Your task to perform on an android device: Open Android settings Image 0: 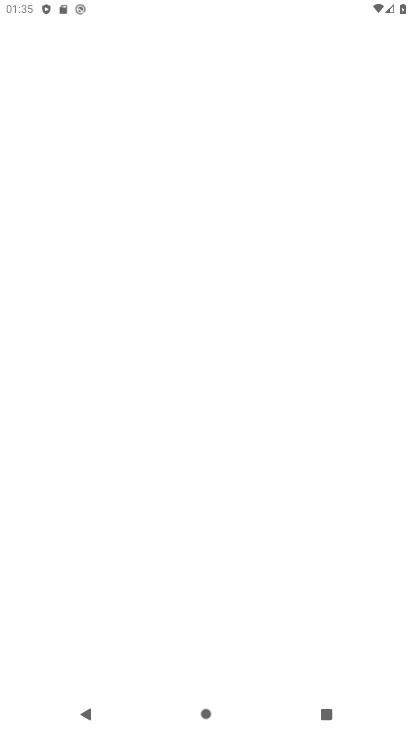
Step 0: drag from (204, 592) to (252, 327)
Your task to perform on an android device: Open Android settings Image 1: 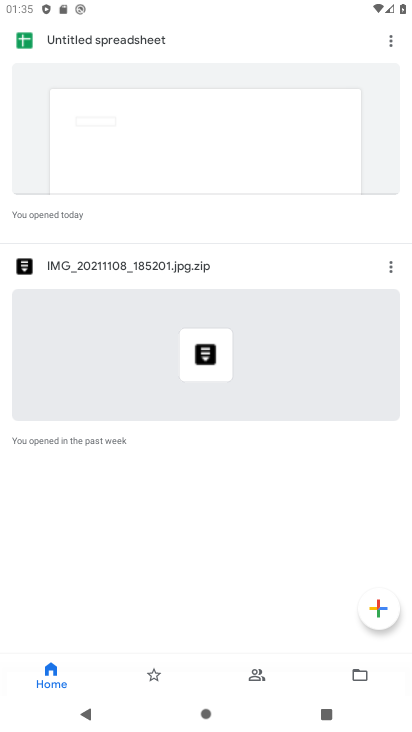
Step 1: press home button
Your task to perform on an android device: Open Android settings Image 2: 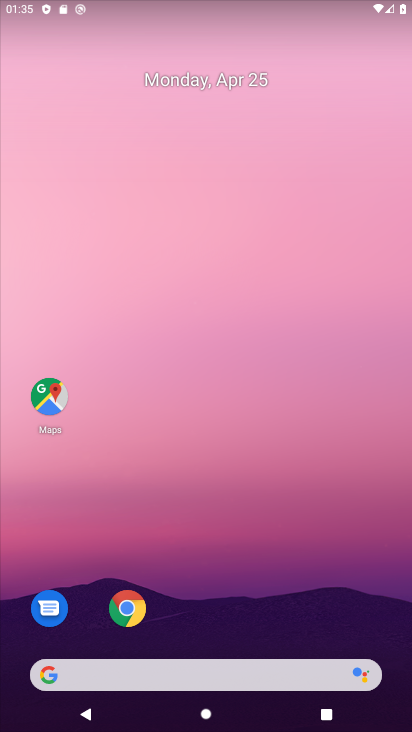
Step 2: drag from (194, 588) to (225, 319)
Your task to perform on an android device: Open Android settings Image 3: 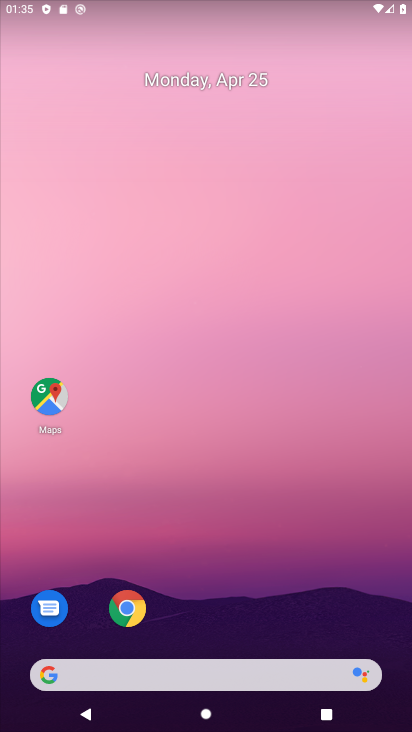
Step 3: drag from (228, 472) to (266, 203)
Your task to perform on an android device: Open Android settings Image 4: 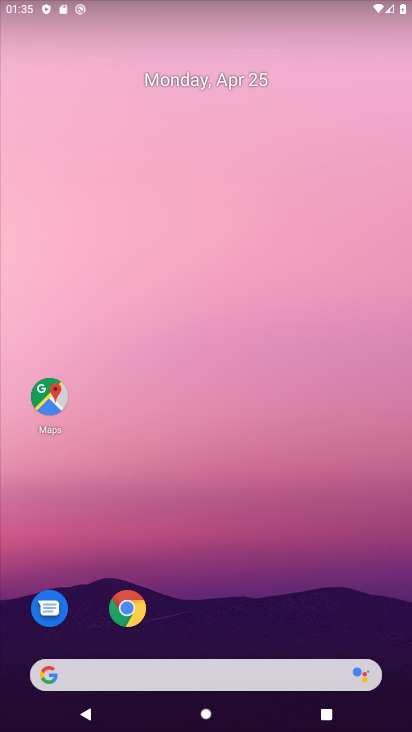
Step 4: drag from (193, 659) to (237, 61)
Your task to perform on an android device: Open Android settings Image 5: 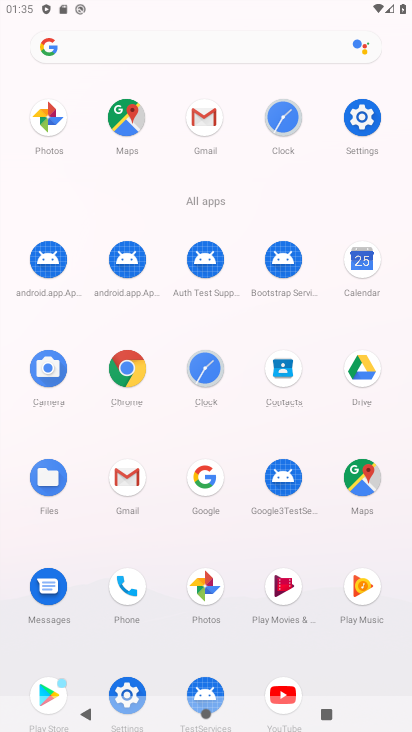
Step 5: click (359, 116)
Your task to perform on an android device: Open Android settings Image 6: 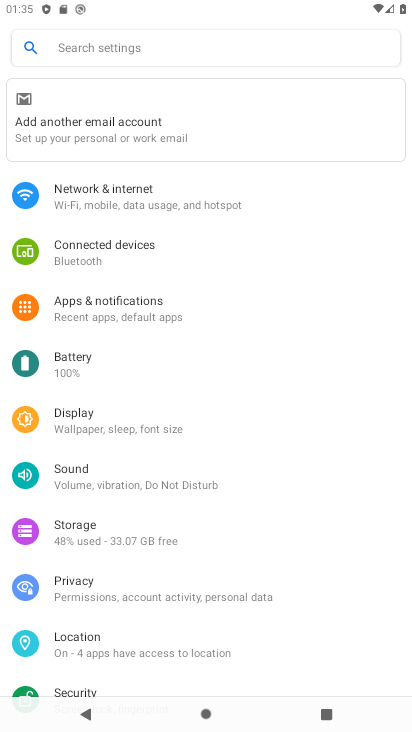
Step 6: drag from (151, 669) to (280, 35)
Your task to perform on an android device: Open Android settings Image 7: 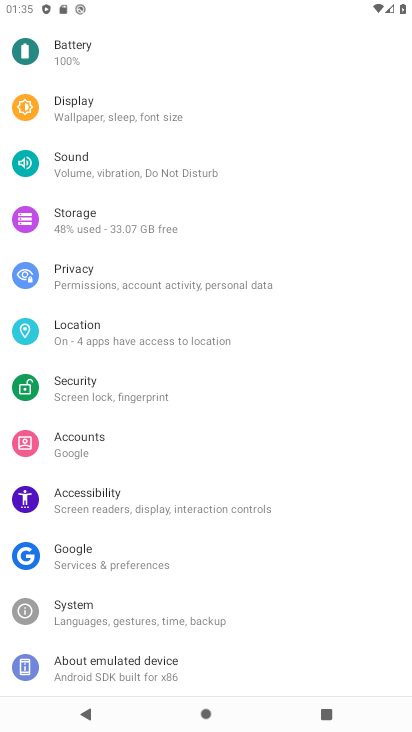
Step 7: click (134, 672)
Your task to perform on an android device: Open Android settings Image 8: 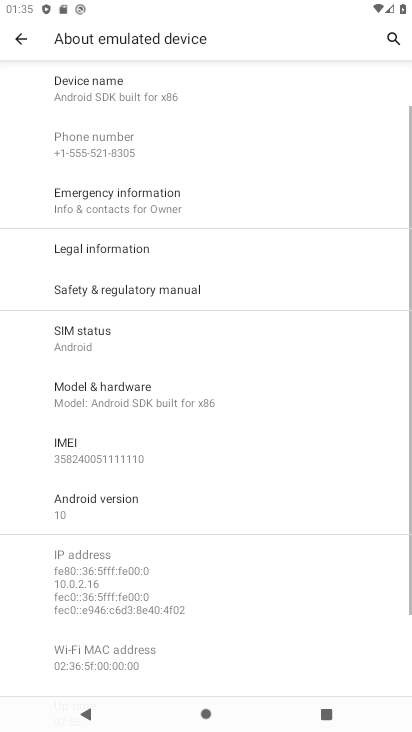
Step 8: task complete